Your task to perform on an android device: turn on location history Image 0: 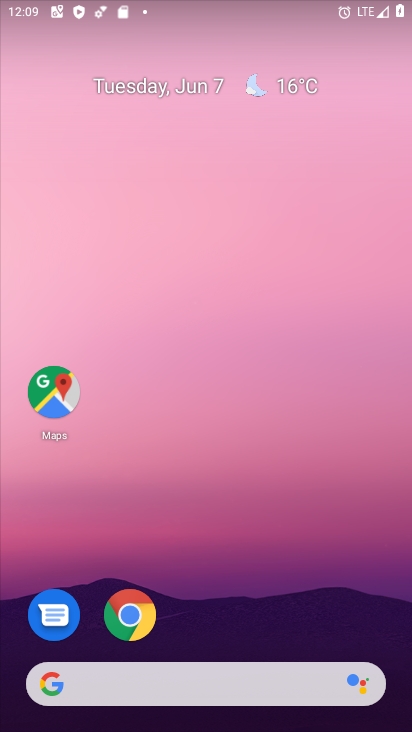
Step 0: drag from (224, 652) to (247, 42)
Your task to perform on an android device: turn on location history Image 1: 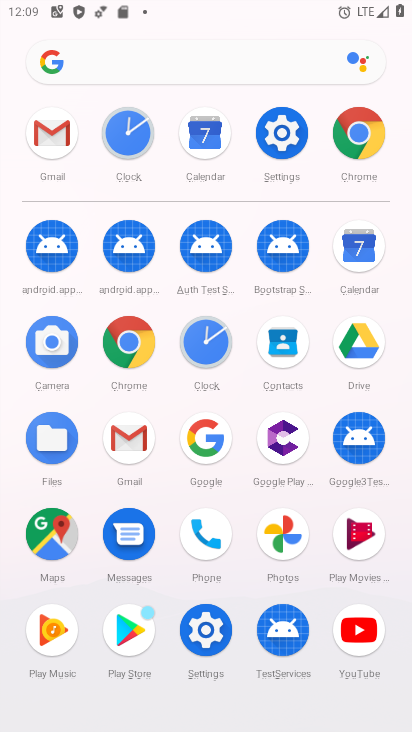
Step 1: click (278, 127)
Your task to perform on an android device: turn on location history Image 2: 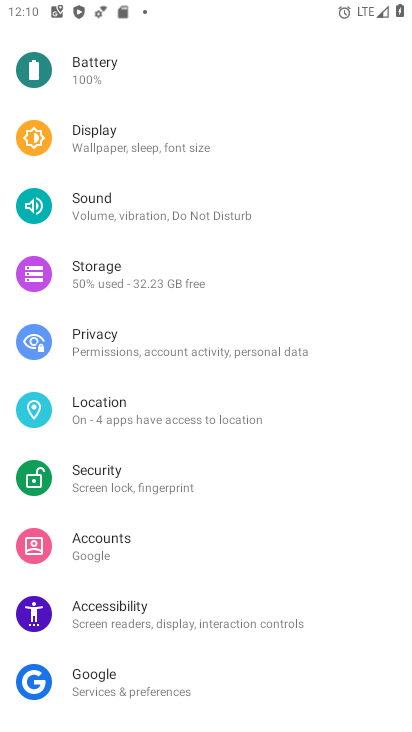
Step 2: click (131, 403)
Your task to perform on an android device: turn on location history Image 3: 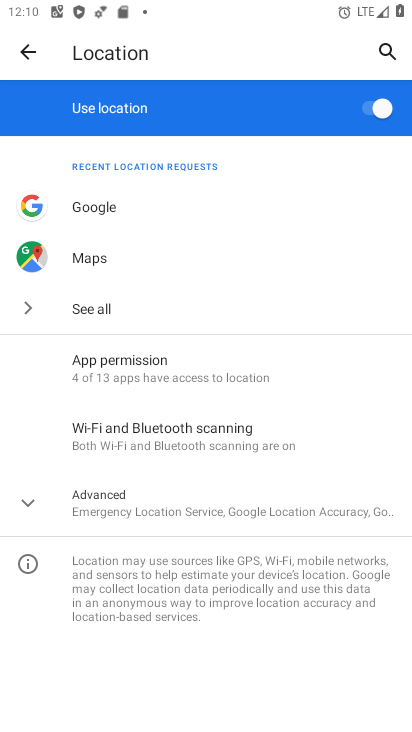
Step 3: click (26, 490)
Your task to perform on an android device: turn on location history Image 4: 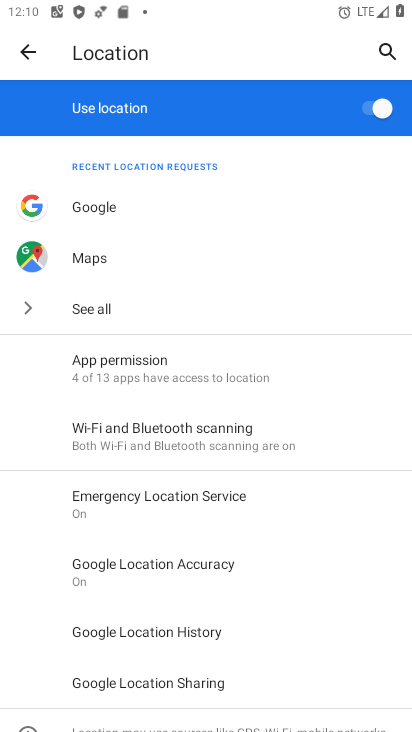
Step 4: click (148, 630)
Your task to perform on an android device: turn on location history Image 5: 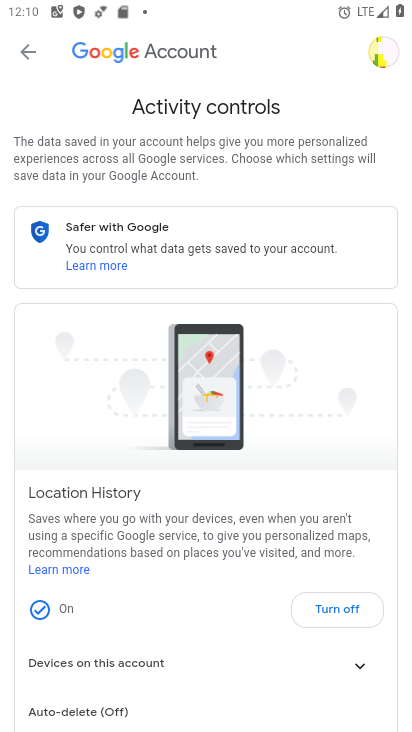
Step 5: task complete